Your task to perform on an android device: move a message to another label in the gmail app Image 0: 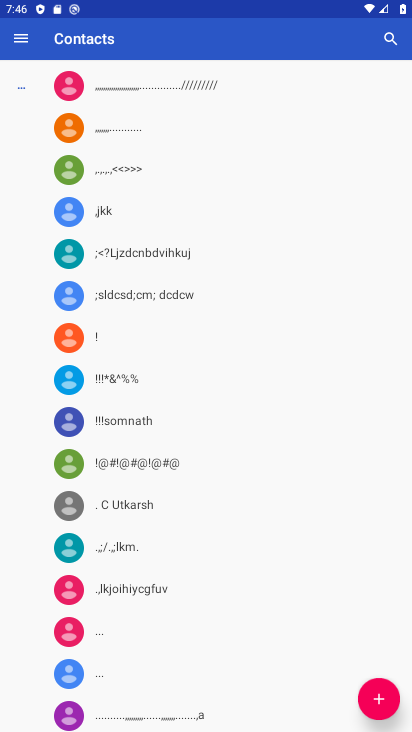
Step 0: press home button
Your task to perform on an android device: move a message to another label in the gmail app Image 1: 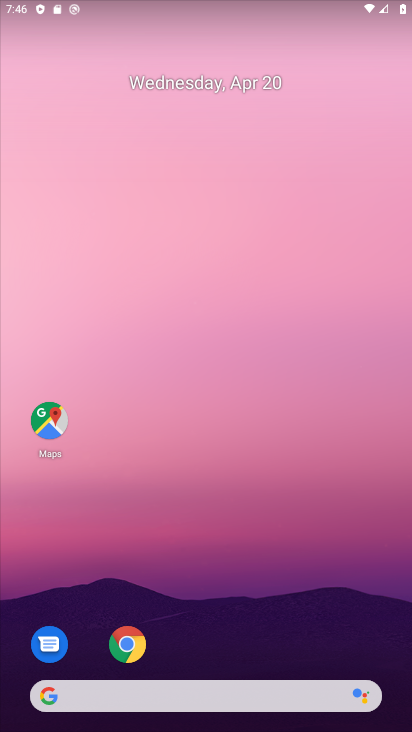
Step 1: drag from (310, 633) to (327, 106)
Your task to perform on an android device: move a message to another label in the gmail app Image 2: 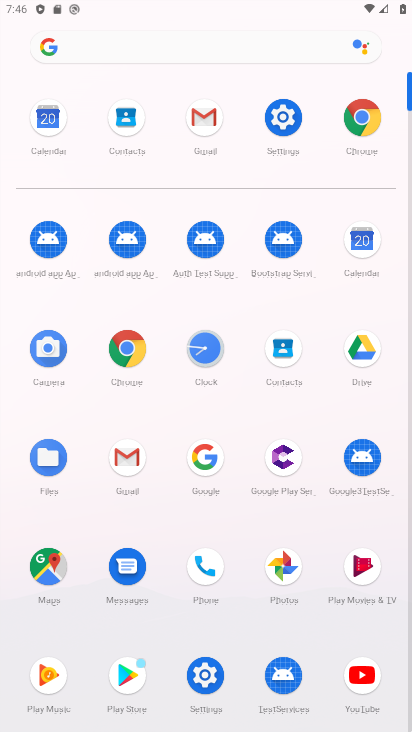
Step 2: click (125, 460)
Your task to perform on an android device: move a message to another label in the gmail app Image 3: 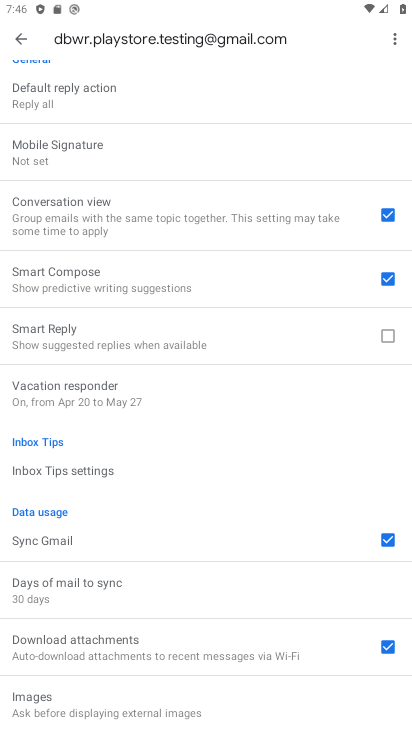
Step 3: click (19, 31)
Your task to perform on an android device: move a message to another label in the gmail app Image 4: 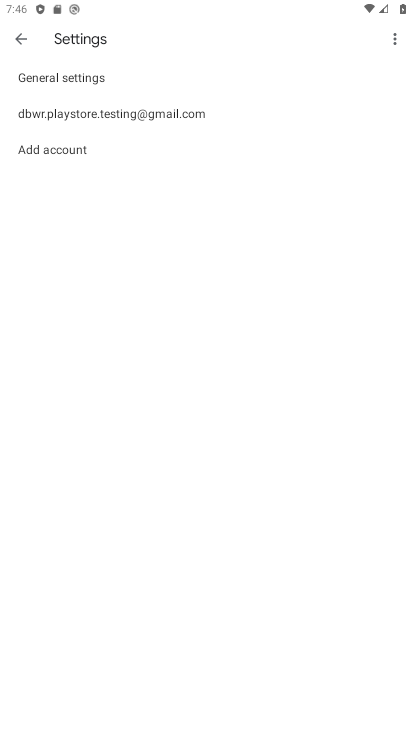
Step 4: click (19, 31)
Your task to perform on an android device: move a message to another label in the gmail app Image 5: 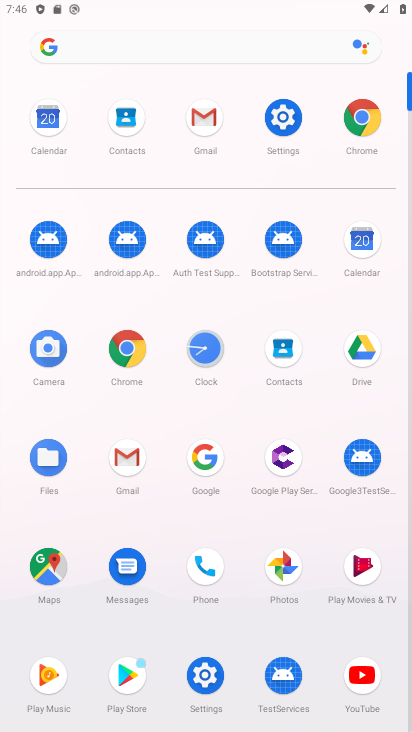
Step 5: click (195, 118)
Your task to perform on an android device: move a message to another label in the gmail app Image 6: 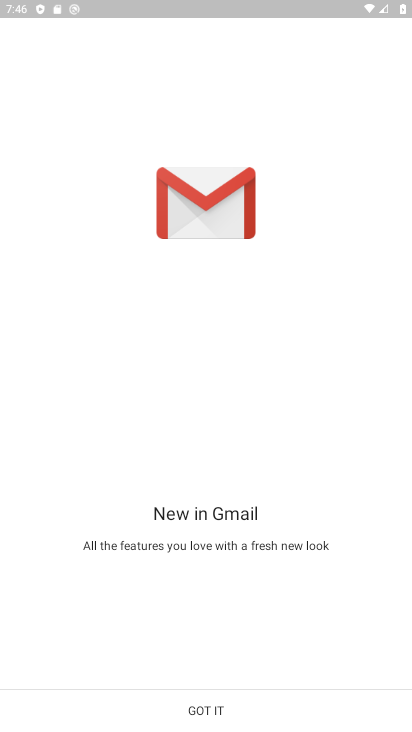
Step 6: click (226, 701)
Your task to perform on an android device: move a message to another label in the gmail app Image 7: 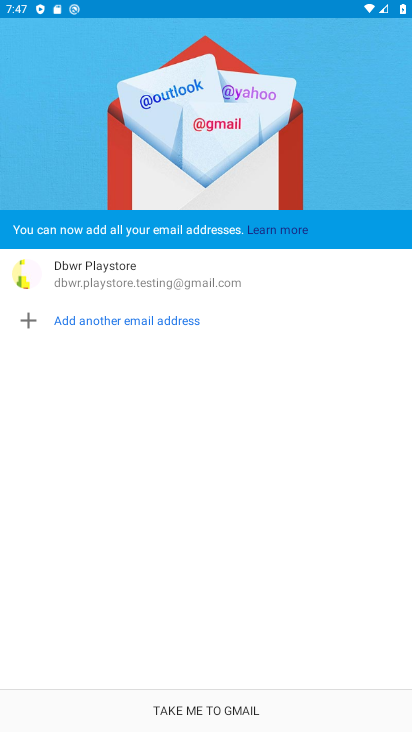
Step 7: click (226, 701)
Your task to perform on an android device: move a message to another label in the gmail app Image 8: 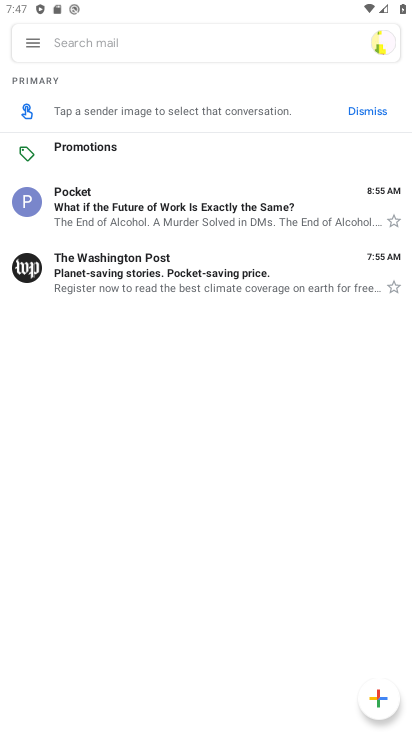
Step 8: click (222, 212)
Your task to perform on an android device: move a message to another label in the gmail app Image 9: 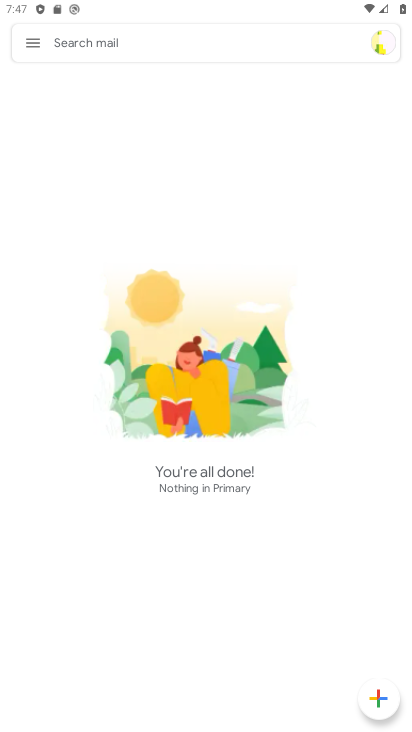
Step 9: task complete